Your task to perform on an android device: set an alarm Image 0: 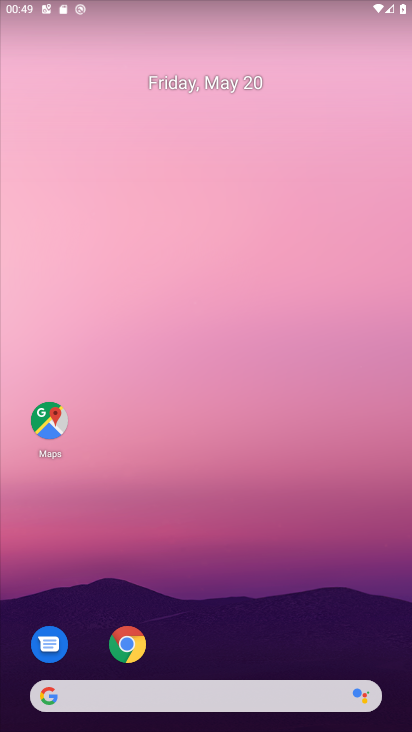
Step 0: drag from (222, 682) to (222, 413)
Your task to perform on an android device: set an alarm Image 1: 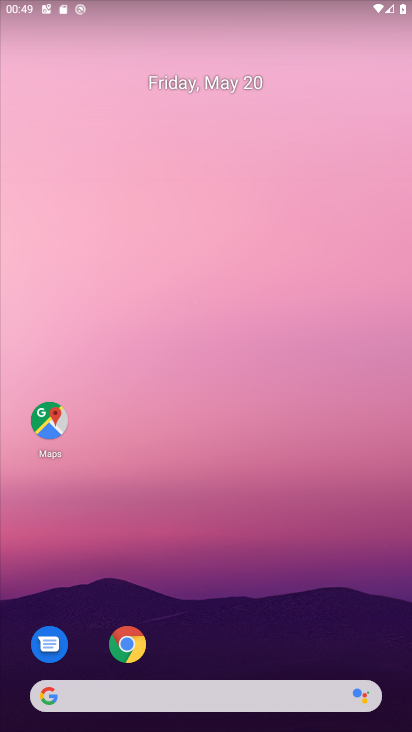
Step 1: drag from (211, 670) to (210, 360)
Your task to perform on an android device: set an alarm Image 2: 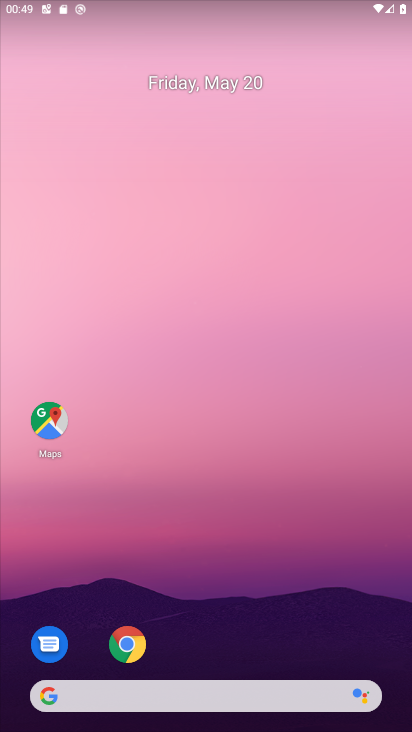
Step 2: drag from (167, 662) to (209, 303)
Your task to perform on an android device: set an alarm Image 3: 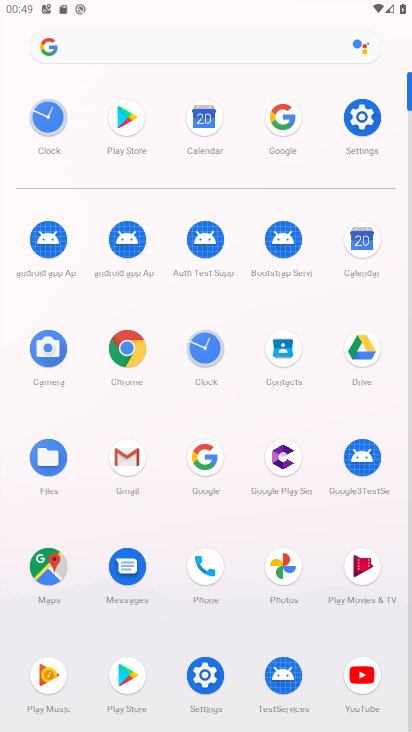
Step 3: click (213, 357)
Your task to perform on an android device: set an alarm Image 4: 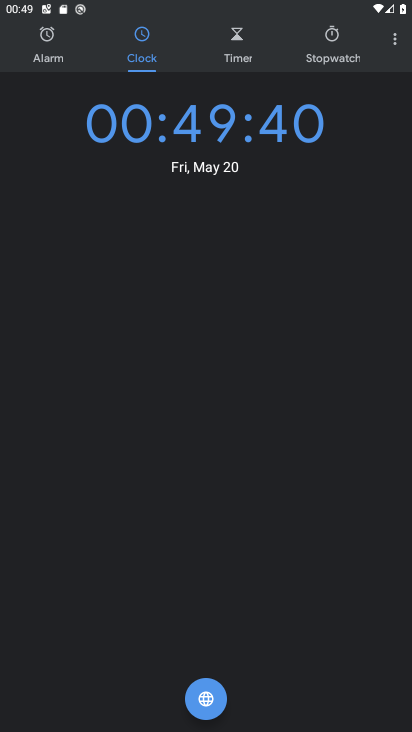
Step 4: click (51, 48)
Your task to perform on an android device: set an alarm Image 5: 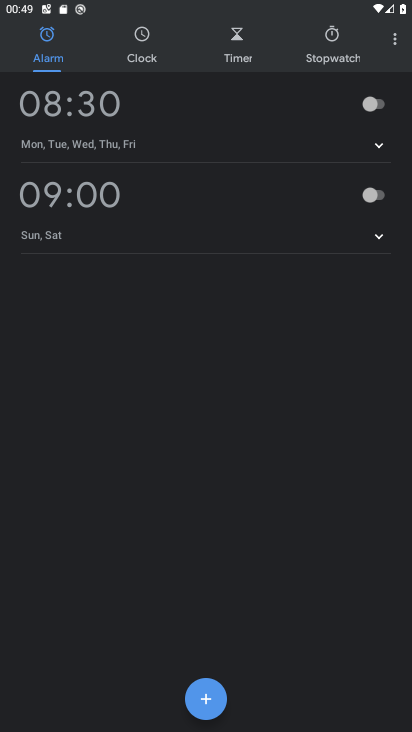
Step 5: click (383, 104)
Your task to perform on an android device: set an alarm Image 6: 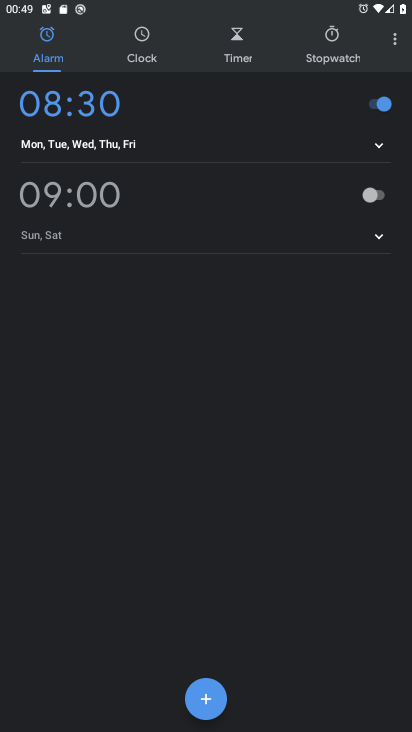
Step 6: task complete